Your task to perform on an android device: Open Amazon Image 0: 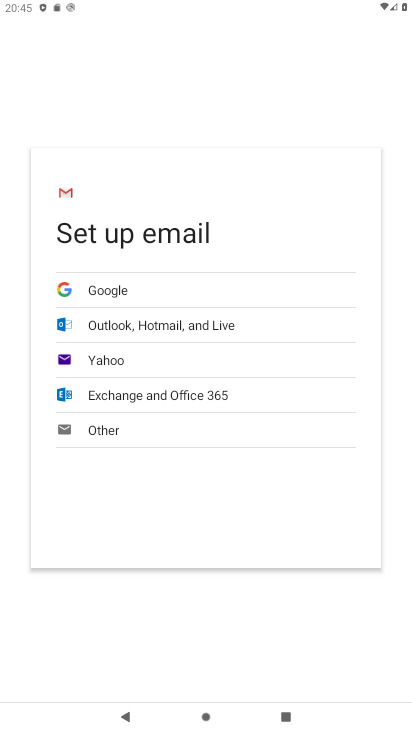
Step 0: press home button
Your task to perform on an android device: Open Amazon Image 1: 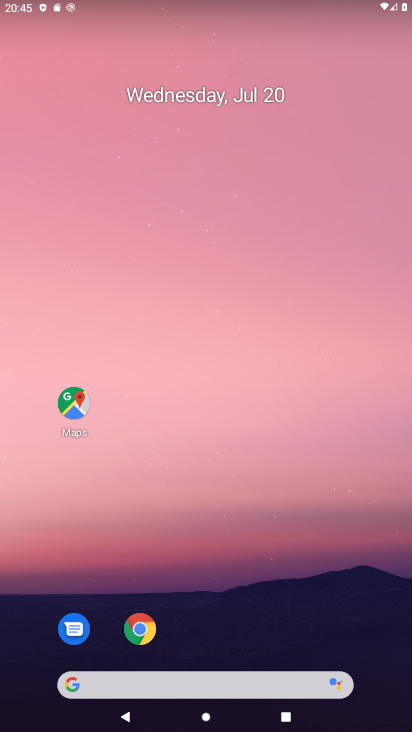
Step 1: click (138, 614)
Your task to perform on an android device: Open Amazon Image 2: 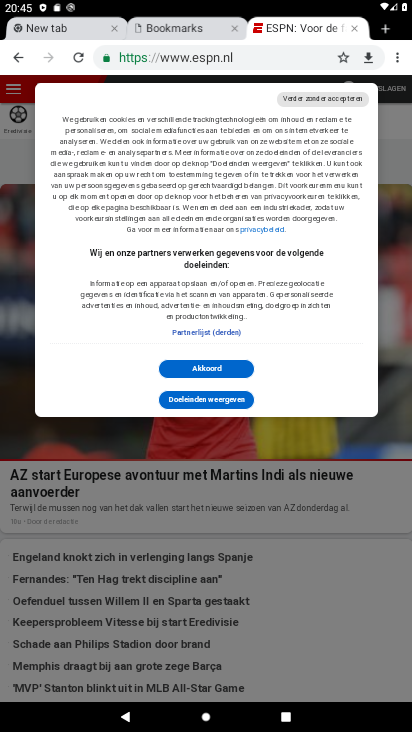
Step 2: click (378, 29)
Your task to perform on an android device: Open Amazon Image 3: 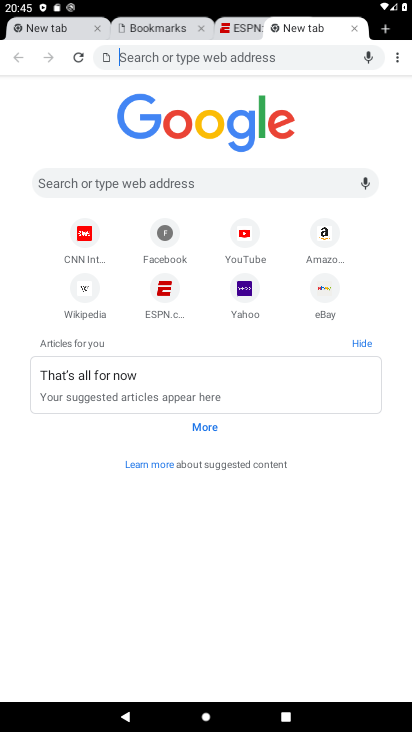
Step 3: click (320, 245)
Your task to perform on an android device: Open Amazon Image 4: 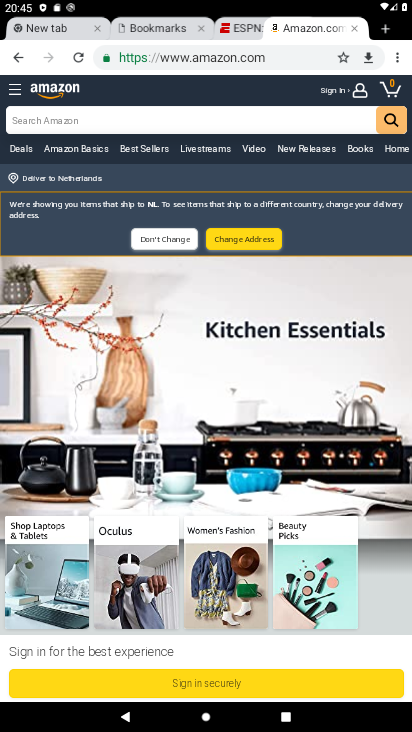
Step 4: task complete